Your task to perform on an android device: find photos in the google photos app Image 0: 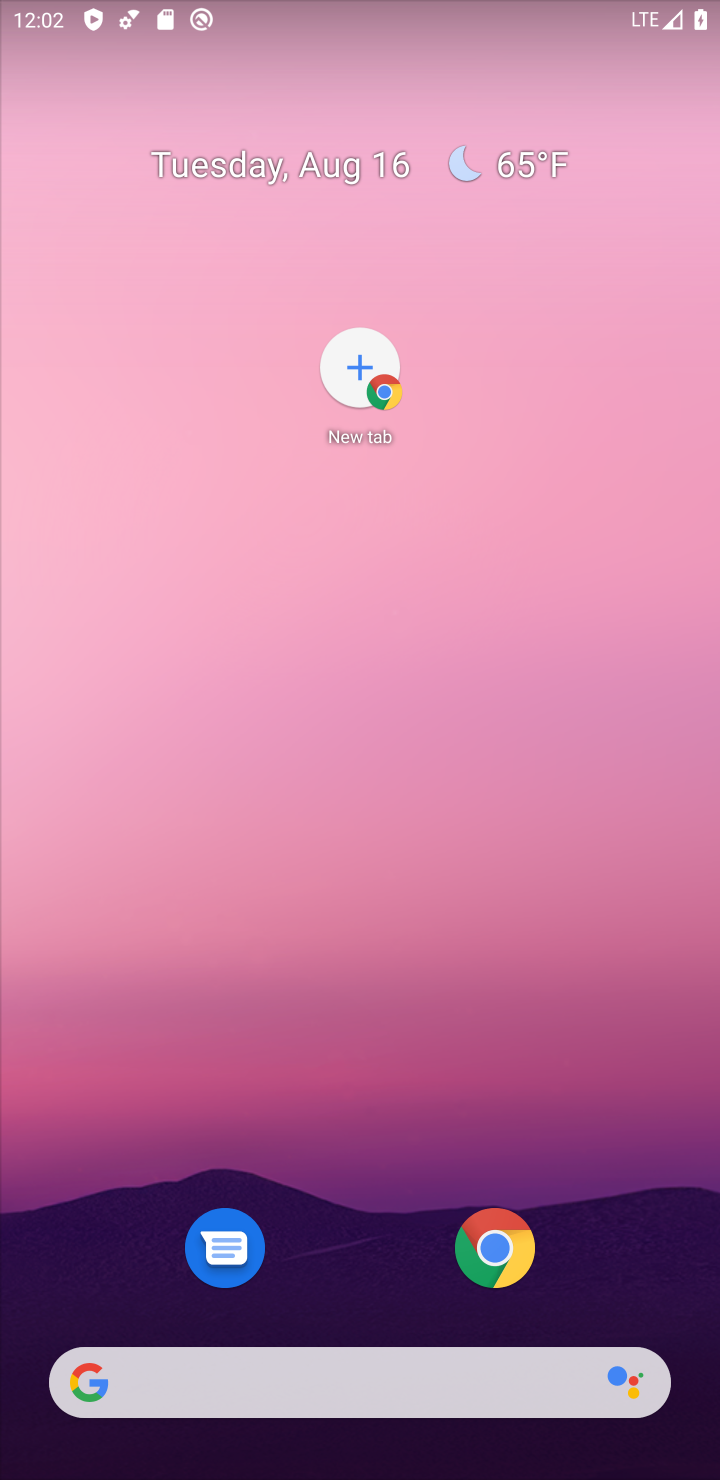
Step 0: drag from (385, 1304) to (399, 231)
Your task to perform on an android device: find photos in the google photos app Image 1: 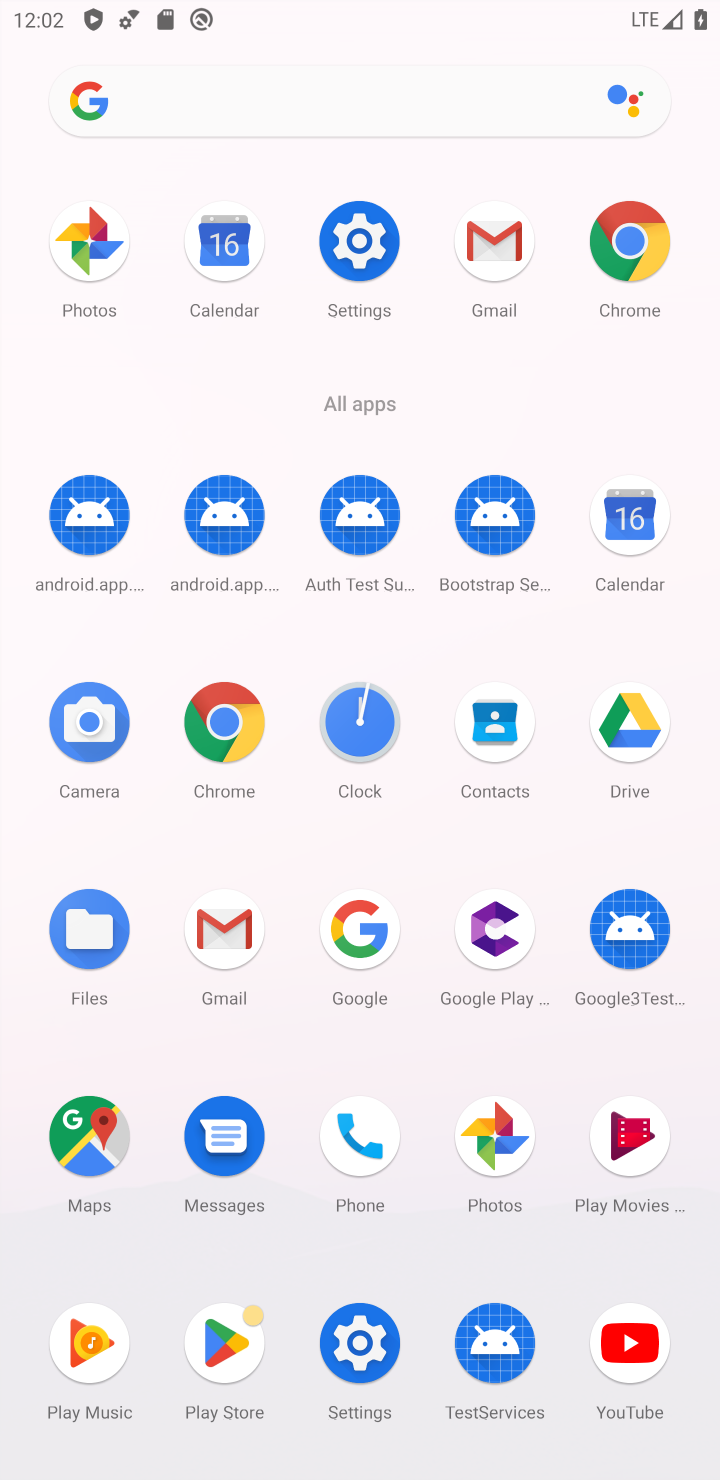
Step 1: click (502, 1155)
Your task to perform on an android device: find photos in the google photos app Image 2: 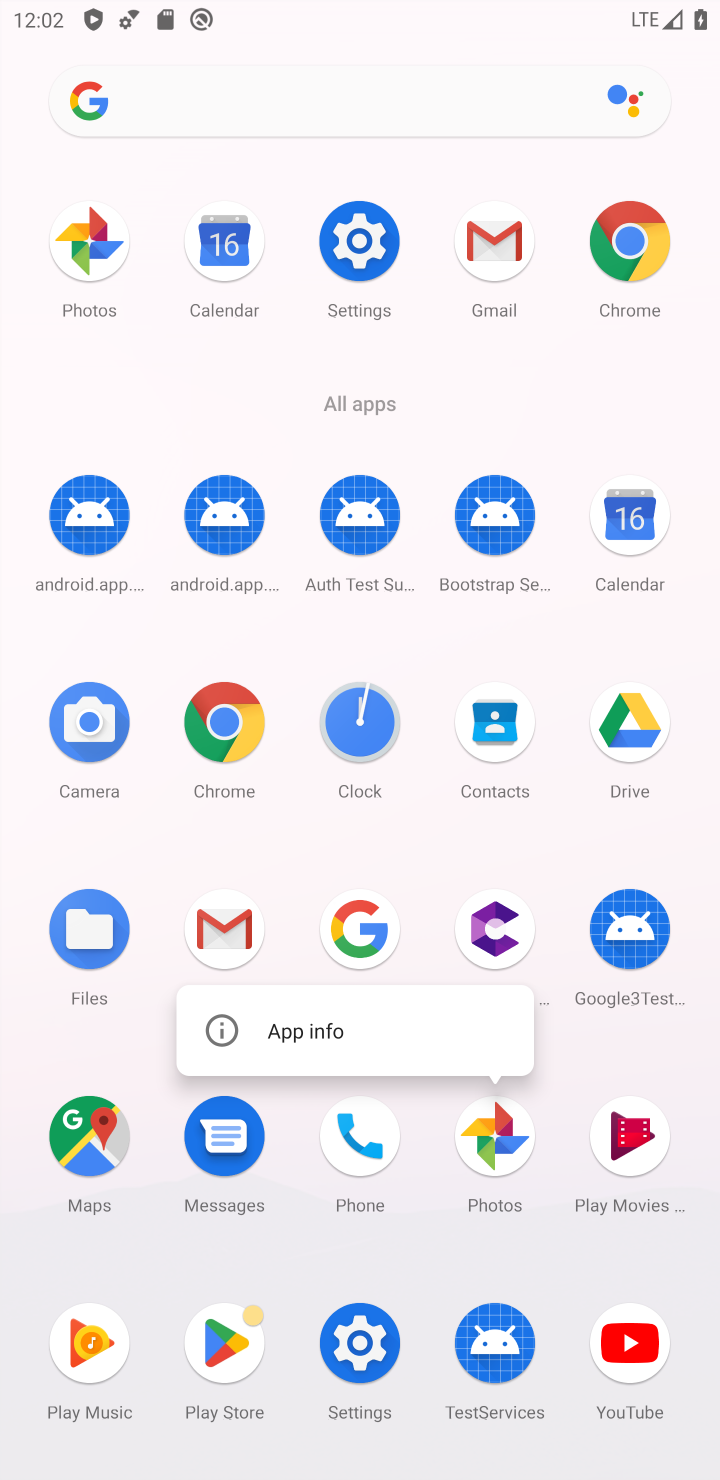
Step 2: click (502, 1155)
Your task to perform on an android device: find photos in the google photos app Image 3: 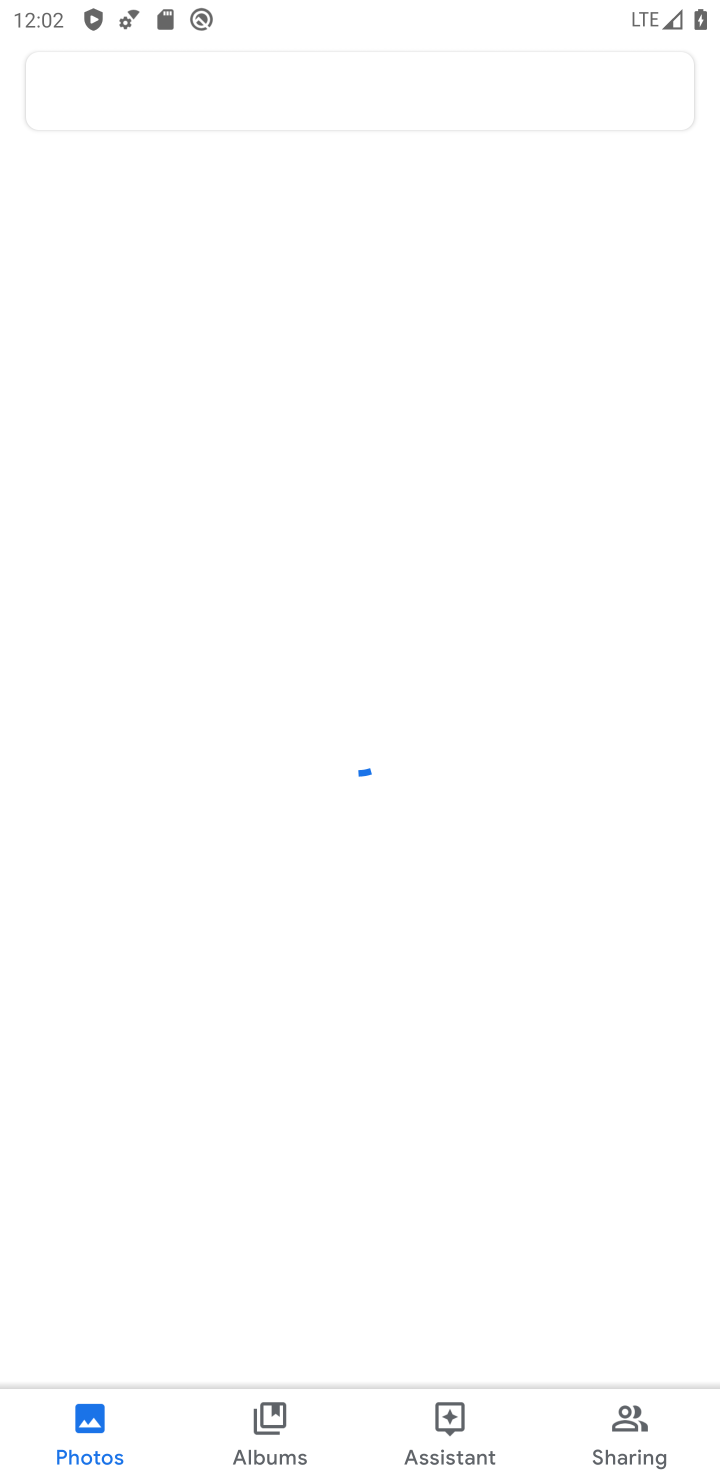
Step 3: task complete